Your task to perform on an android device: Go to CNN.com Image 0: 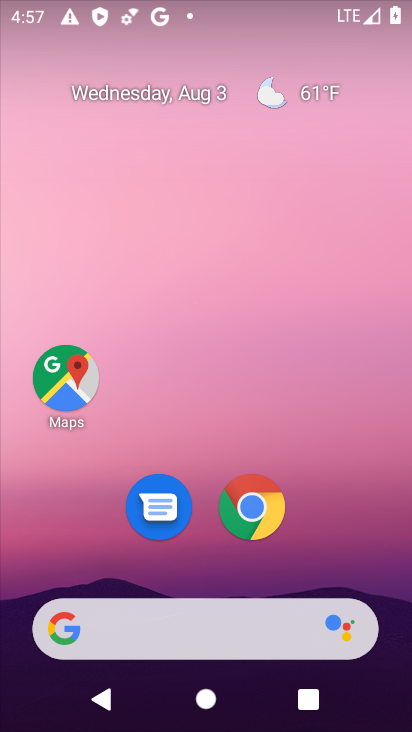
Step 0: click (256, 508)
Your task to perform on an android device: Go to CNN.com Image 1: 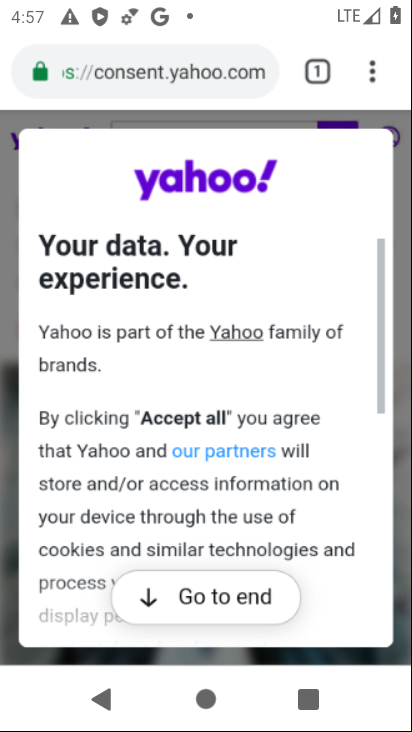
Step 1: click (228, 79)
Your task to perform on an android device: Go to CNN.com Image 2: 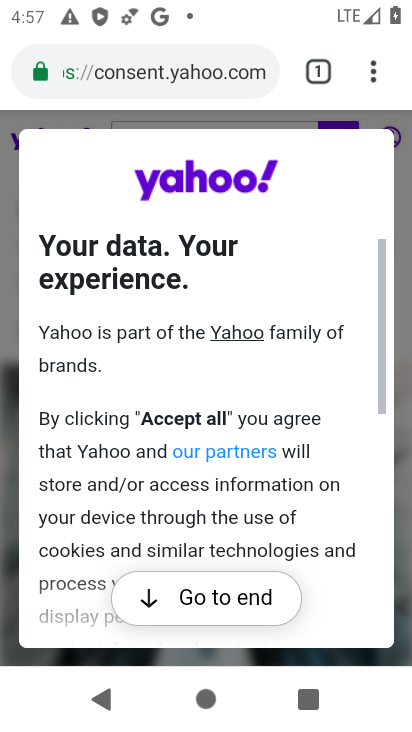
Step 2: click (217, 74)
Your task to perform on an android device: Go to CNN.com Image 3: 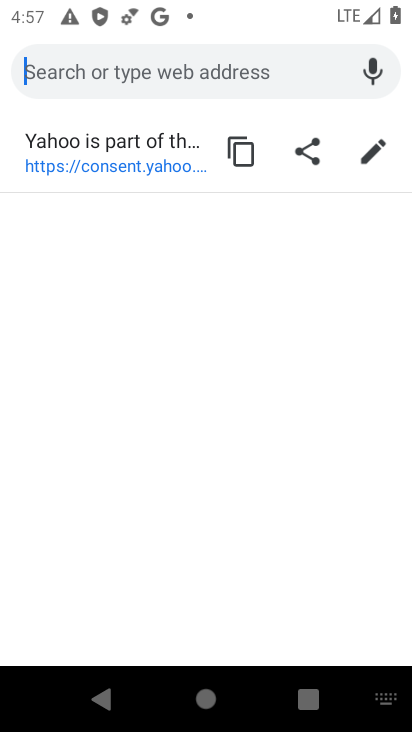
Step 3: type "cnn.com"
Your task to perform on an android device: Go to CNN.com Image 4: 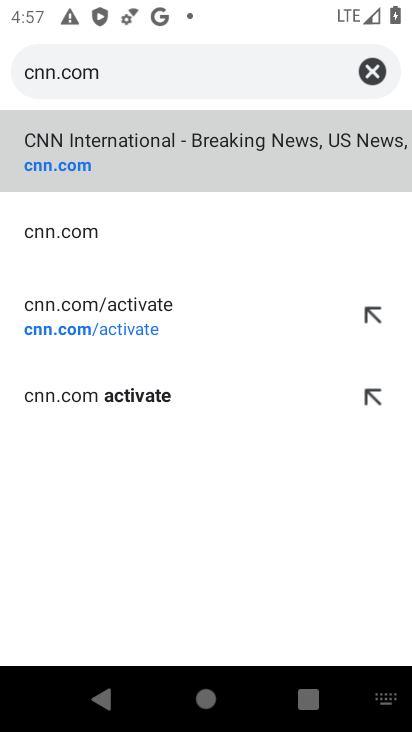
Step 4: type "z"
Your task to perform on an android device: Go to CNN.com Image 5: 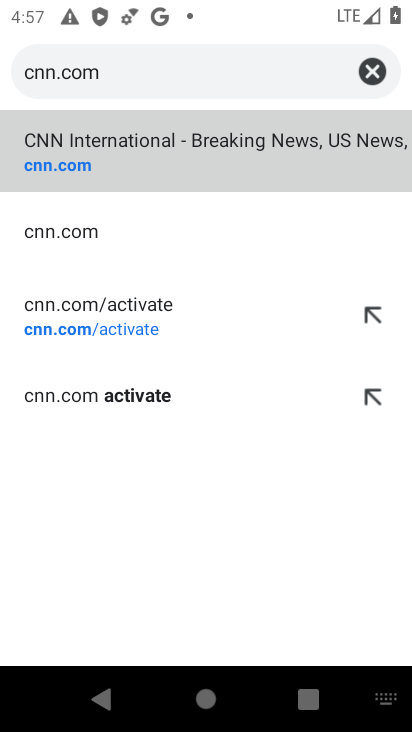
Step 5: click (117, 165)
Your task to perform on an android device: Go to CNN.com Image 6: 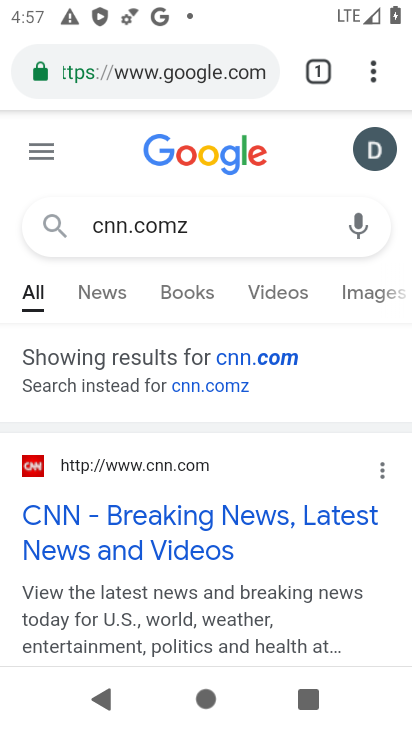
Step 6: click (146, 515)
Your task to perform on an android device: Go to CNN.com Image 7: 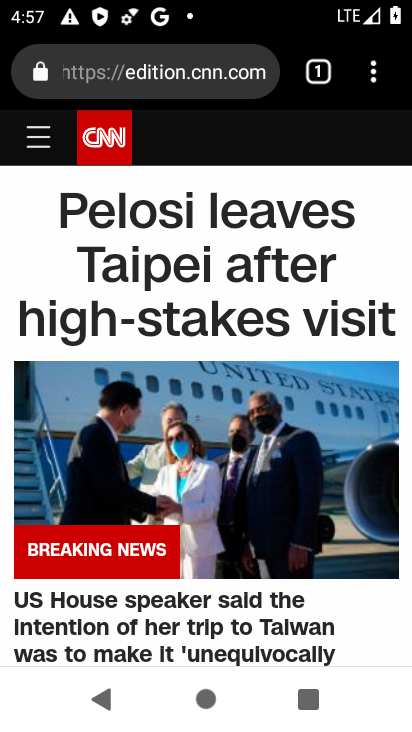
Step 7: task complete